Your task to perform on an android device: Search for the best rated wireless headphones on Amazon. Image 0: 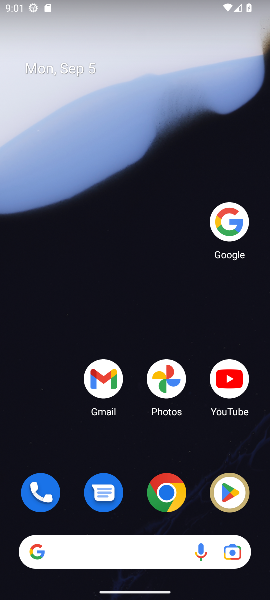
Step 0: click (239, 213)
Your task to perform on an android device: Search for the best rated wireless headphones on Amazon. Image 1: 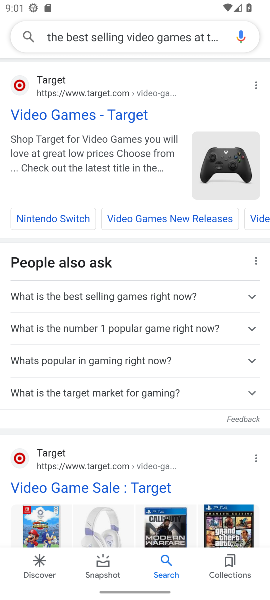
Step 1: click (161, 41)
Your task to perform on an android device: Search for the best rated wireless headphones on Amazon. Image 2: 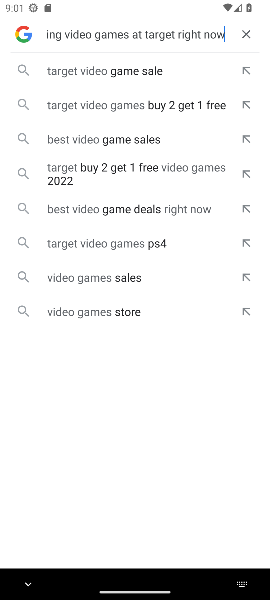
Step 2: click (247, 35)
Your task to perform on an android device: Search for the best rated wireless headphones on Amazon. Image 3: 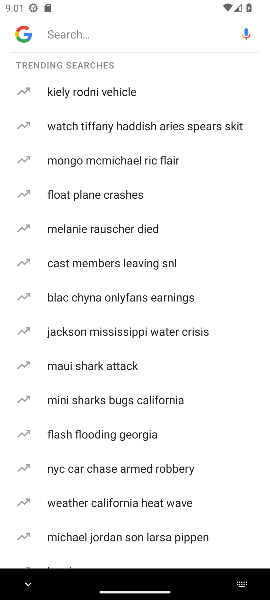
Step 3: click (125, 38)
Your task to perform on an android device: Search for the best rated wireless headphones on Amazon. Image 4: 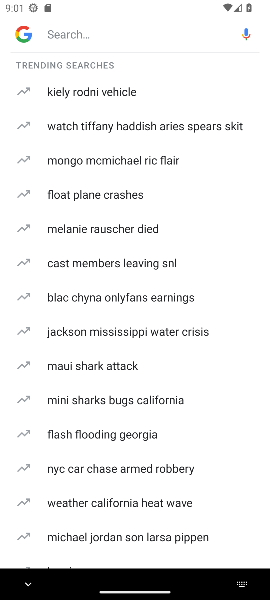
Step 4: type " the best rated wireless headphones on Amazon "
Your task to perform on an android device: Search for the best rated wireless headphones on Amazon. Image 5: 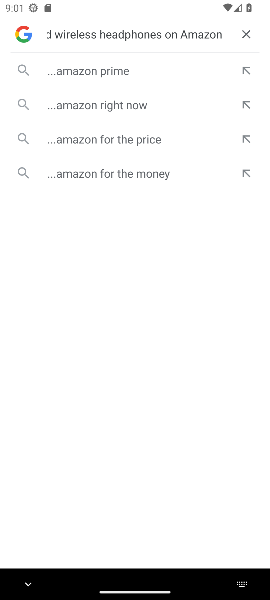
Step 5: click (109, 101)
Your task to perform on an android device: Search for the best rated wireless headphones on Amazon. Image 6: 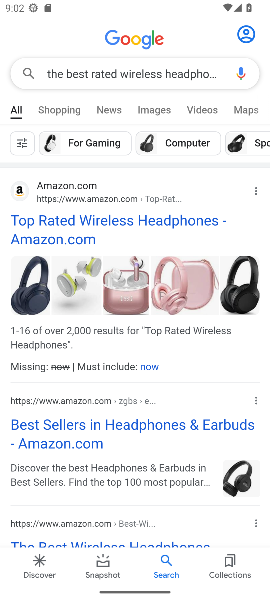
Step 6: task complete